Your task to perform on an android device: Show me recent news Image 0: 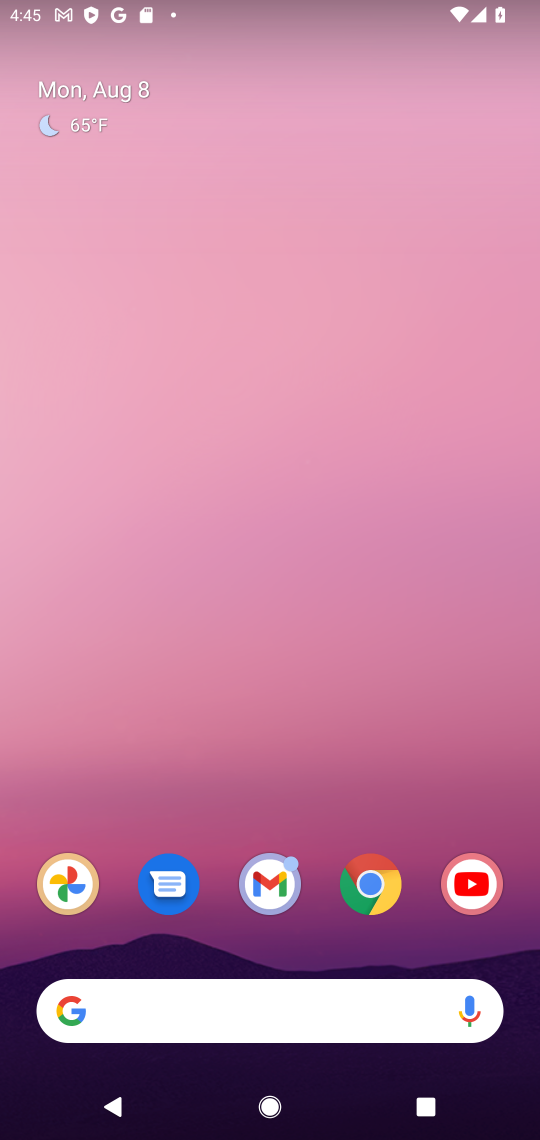
Step 0: click (369, 896)
Your task to perform on an android device: Show me recent news Image 1: 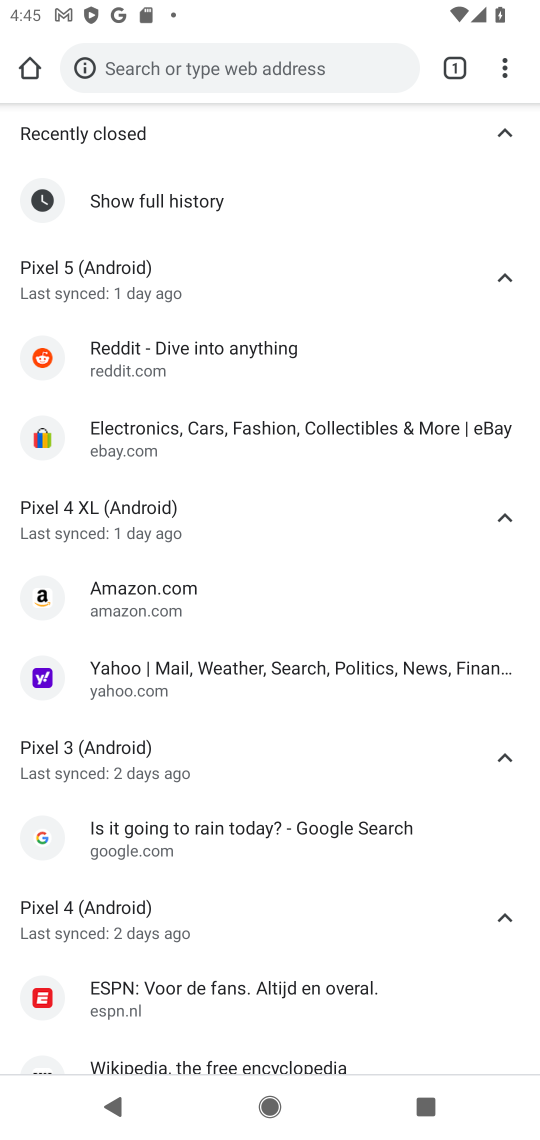
Step 1: click (283, 80)
Your task to perform on an android device: Show me recent news Image 2: 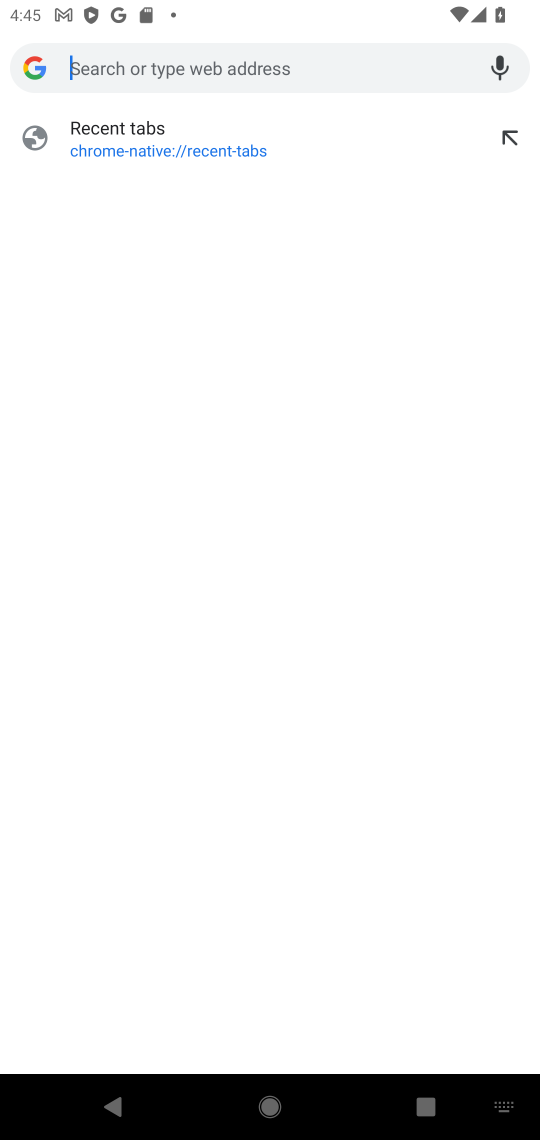
Step 2: type "recent news"
Your task to perform on an android device: Show me recent news Image 3: 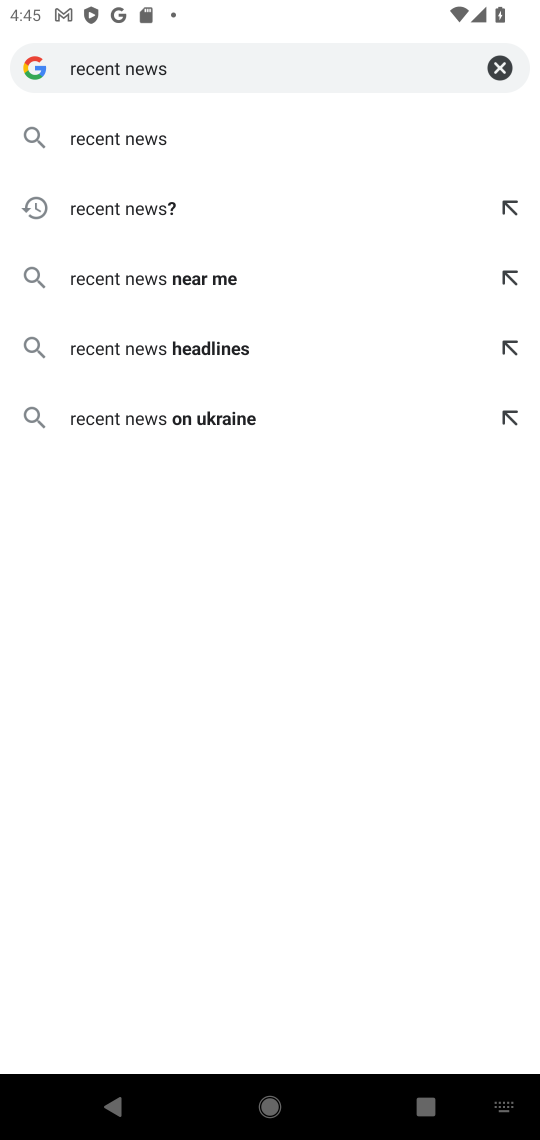
Step 3: click (152, 133)
Your task to perform on an android device: Show me recent news Image 4: 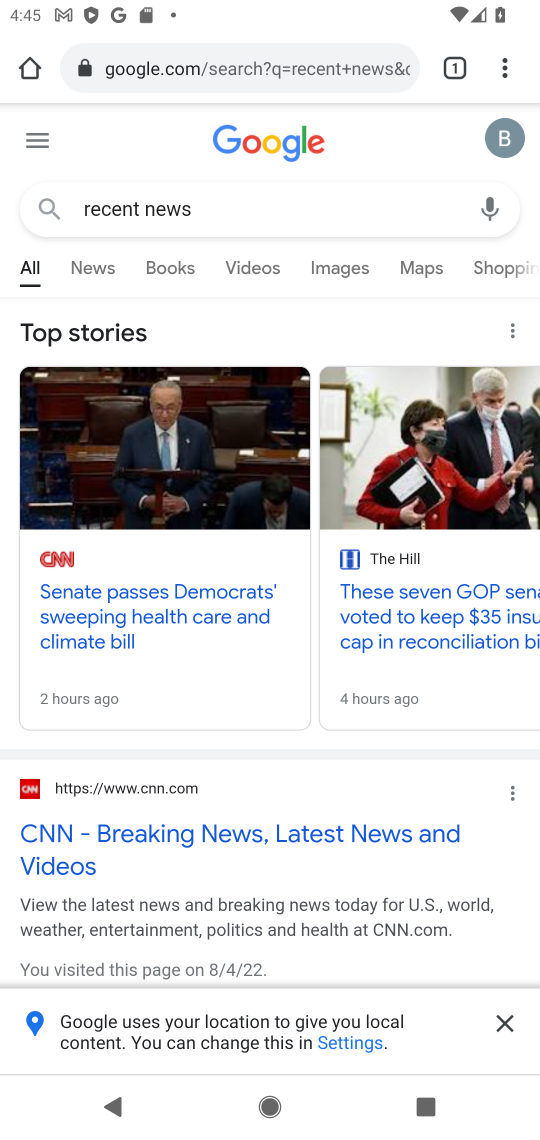
Step 4: task complete